Your task to perform on an android device: When is my next appointment? Image 0: 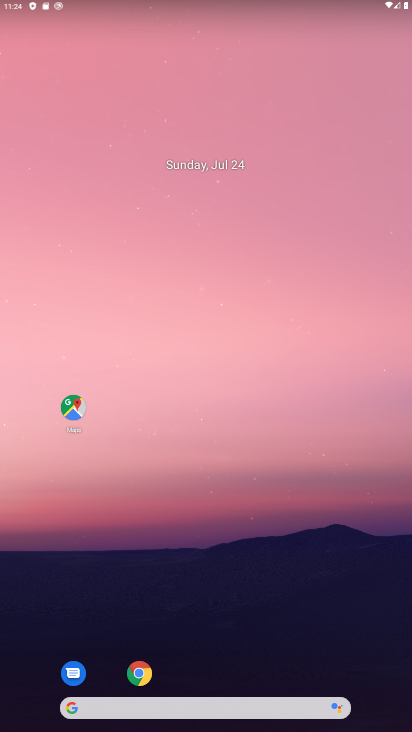
Step 0: drag from (194, 712) to (221, 233)
Your task to perform on an android device: When is my next appointment? Image 1: 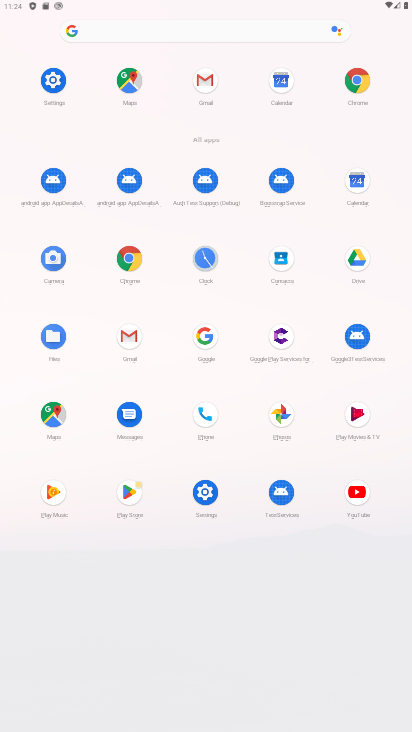
Step 1: click (356, 181)
Your task to perform on an android device: When is my next appointment? Image 2: 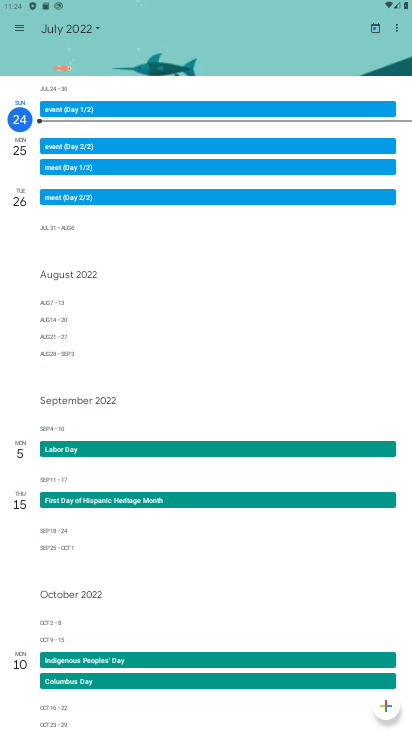
Step 2: click (379, 28)
Your task to perform on an android device: When is my next appointment? Image 3: 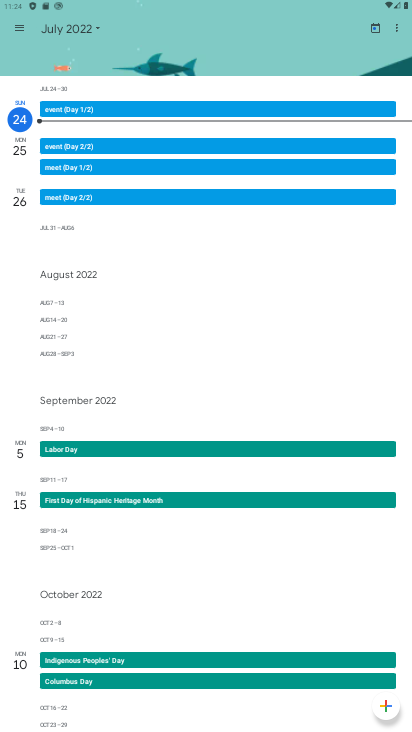
Step 3: click (98, 25)
Your task to perform on an android device: When is my next appointment? Image 4: 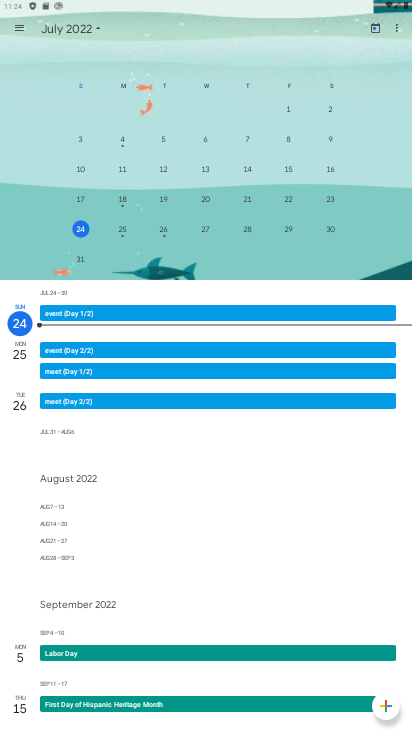
Step 4: click (125, 233)
Your task to perform on an android device: When is my next appointment? Image 5: 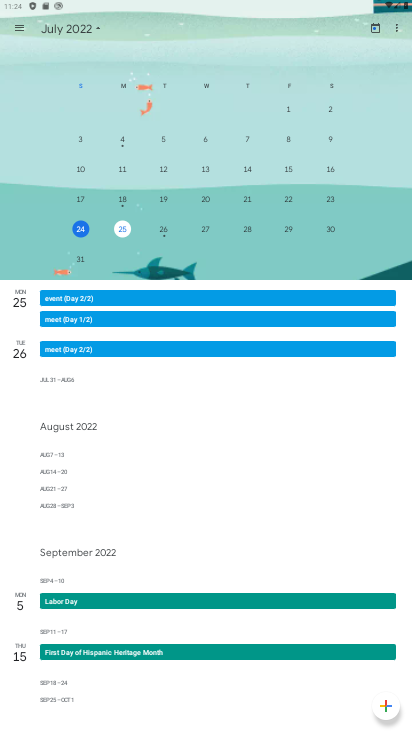
Step 5: task complete